Your task to perform on an android device: open the mobile data screen to see how much data has been used Image 0: 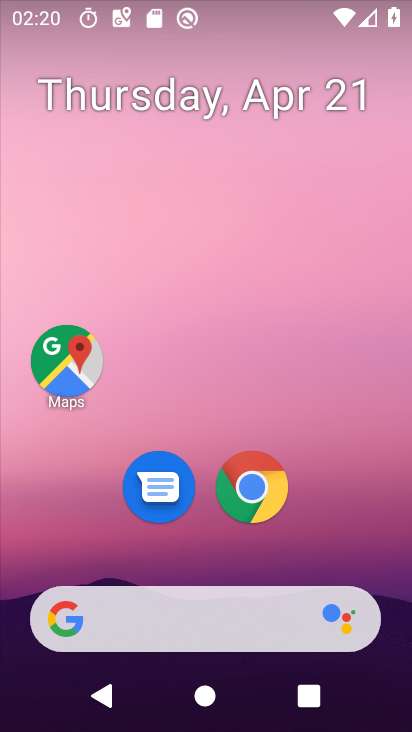
Step 0: drag from (197, 459) to (198, 175)
Your task to perform on an android device: open the mobile data screen to see how much data has been used Image 1: 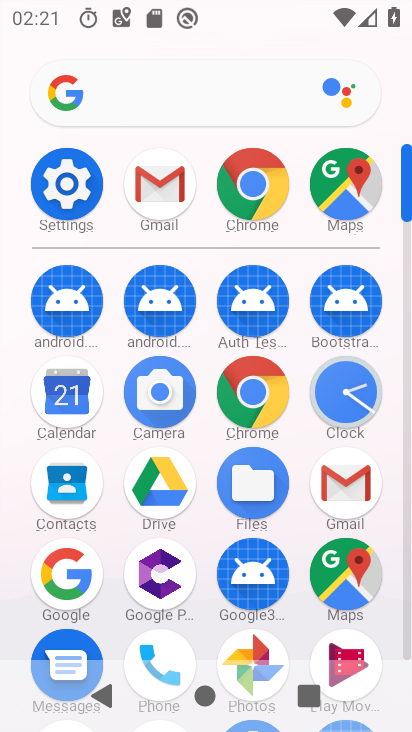
Step 1: click (78, 191)
Your task to perform on an android device: open the mobile data screen to see how much data has been used Image 2: 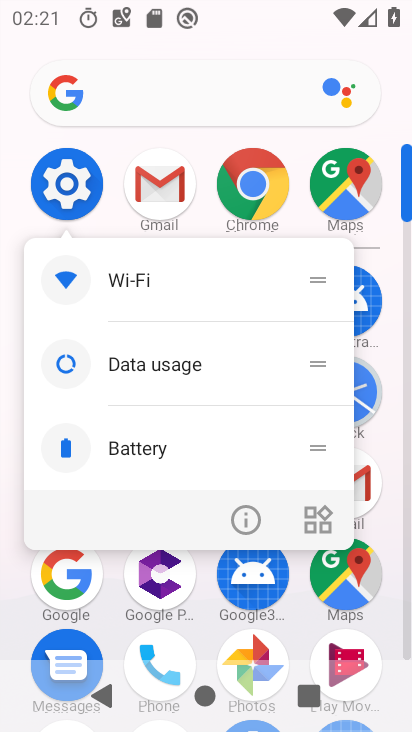
Step 2: click (236, 526)
Your task to perform on an android device: open the mobile data screen to see how much data has been used Image 3: 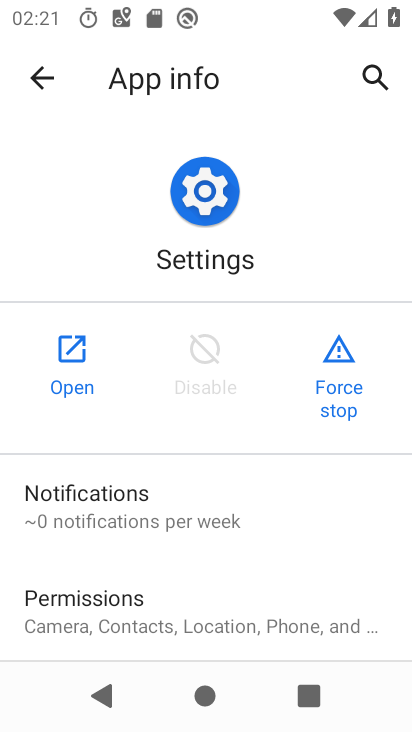
Step 3: click (46, 355)
Your task to perform on an android device: open the mobile data screen to see how much data has been used Image 4: 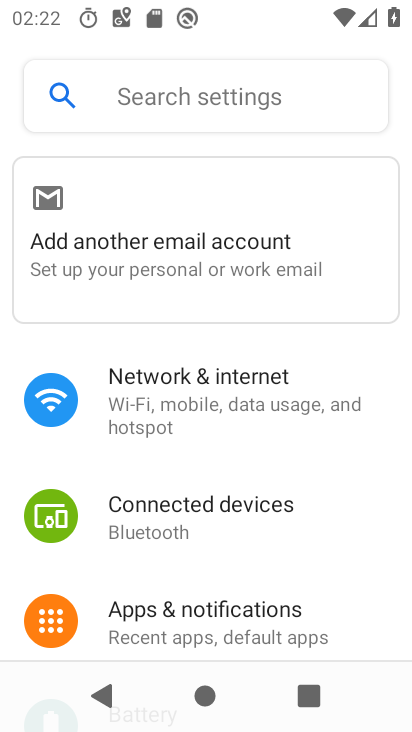
Step 4: click (186, 402)
Your task to perform on an android device: open the mobile data screen to see how much data has been used Image 5: 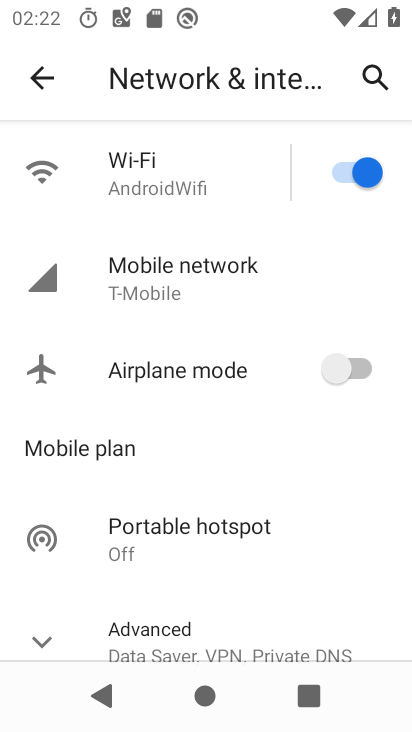
Step 5: click (212, 266)
Your task to perform on an android device: open the mobile data screen to see how much data has been used Image 6: 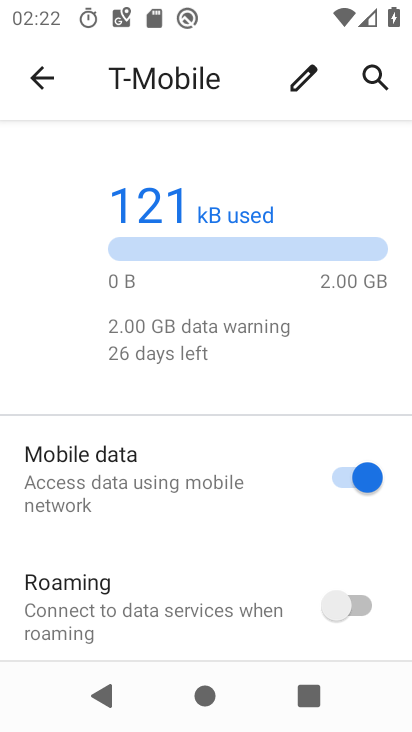
Step 6: task complete